Your task to perform on an android device: Open Google Chrome and click the shortcut for Amazon.com Image 0: 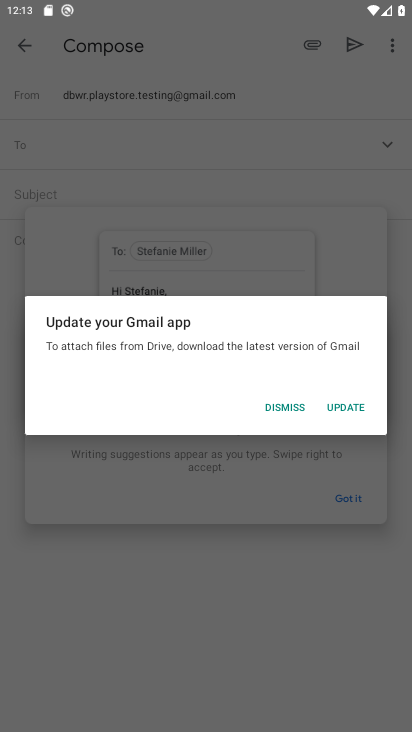
Step 0: press home button
Your task to perform on an android device: Open Google Chrome and click the shortcut for Amazon.com Image 1: 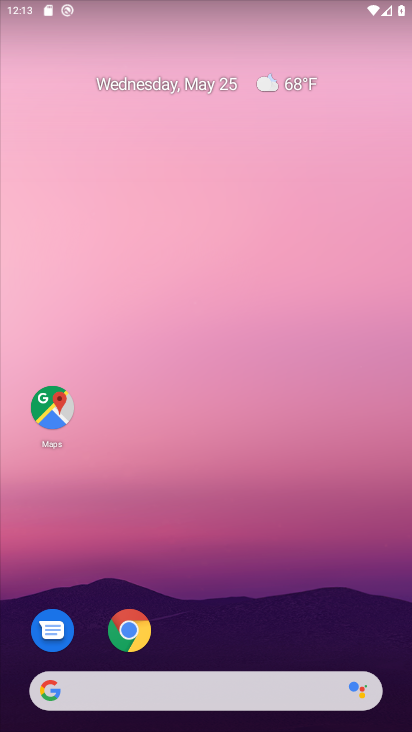
Step 1: click (152, 635)
Your task to perform on an android device: Open Google Chrome and click the shortcut for Amazon.com Image 2: 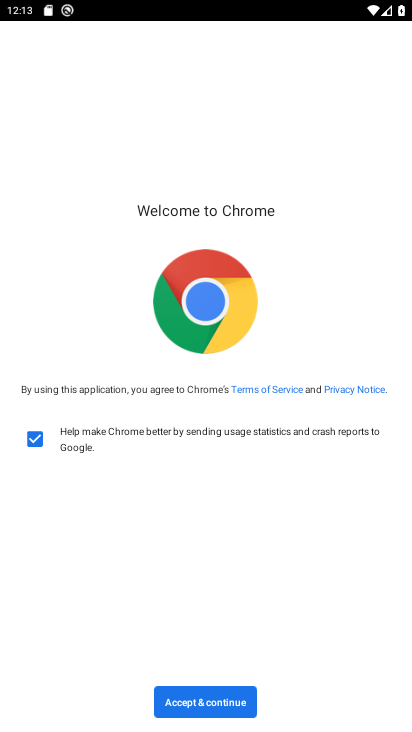
Step 2: click (211, 696)
Your task to perform on an android device: Open Google Chrome and click the shortcut for Amazon.com Image 3: 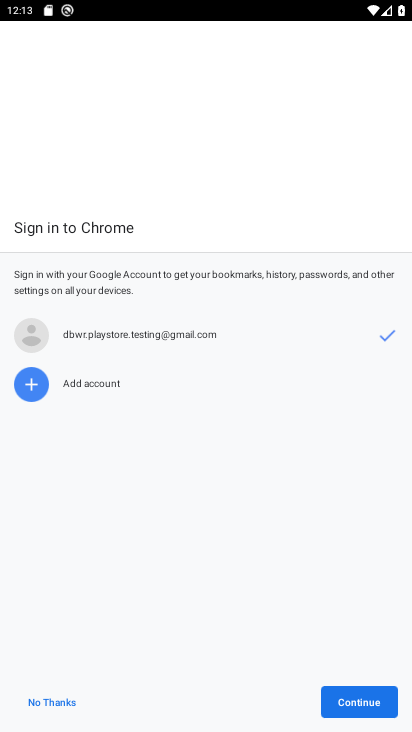
Step 3: click (371, 693)
Your task to perform on an android device: Open Google Chrome and click the shortcut for Amazon.com Image 4: 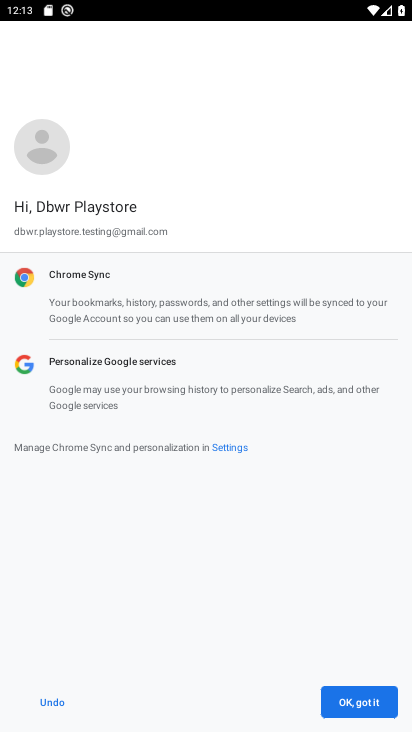
Step 4: click (352, 706)
Your task to perform on an android device: Open Google Chrome and click the shortcut for Amazon.com Image 5: 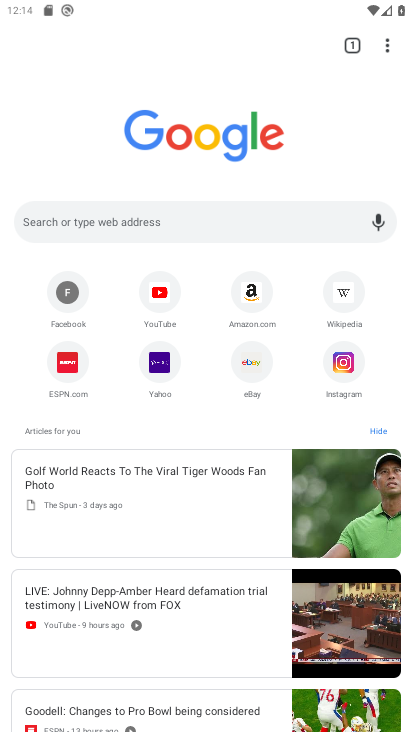
Step 5: click (243, 304)
Your task to perform on an android device: Open Google Chrome and click the shortcut for Amazon.com Image 6: 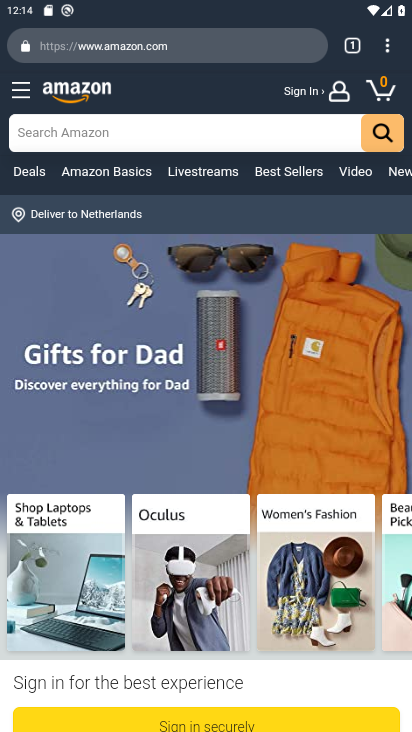
Step 6: task complete